Your task to perform on an android device: Open Youtube and go to the subscriptions tab Image 0: 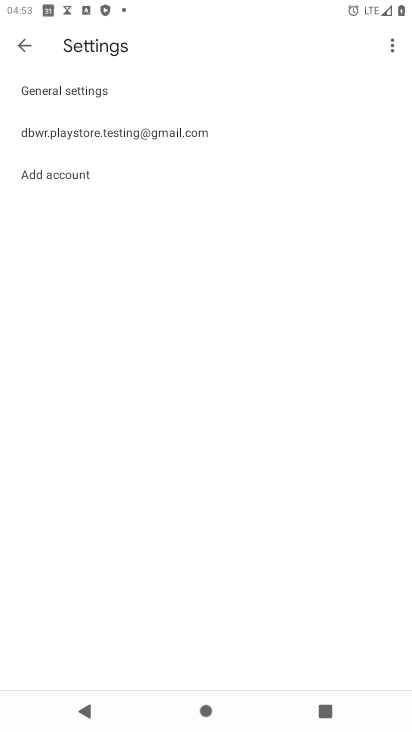
Step 0: press home button
Your task to perform on an android device: Open Youtube and go to the subscriptions tab Image 1: 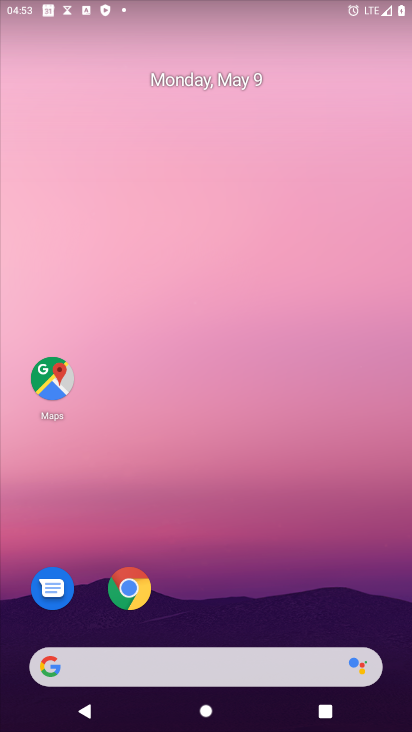
Step 1: drag from (304, 588) to (224, 103)
Your task to perform on an android device: Open Youtube and go to the subscriptions tab Image 2: 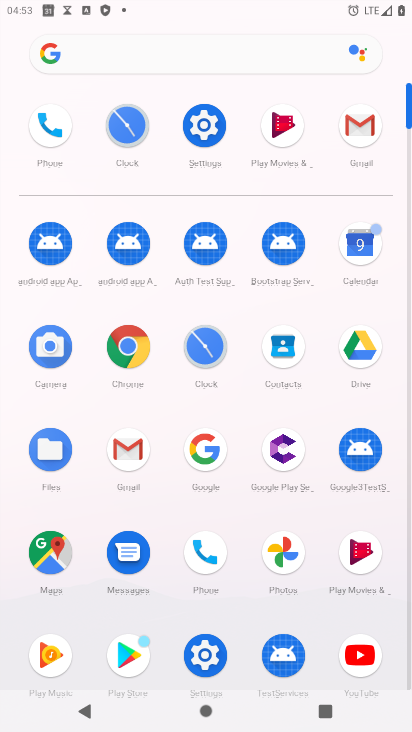
Step 2: click (351, 649)
Your task to perform on an android device: Open Youtube and go to the subscriptions tab Image 3: 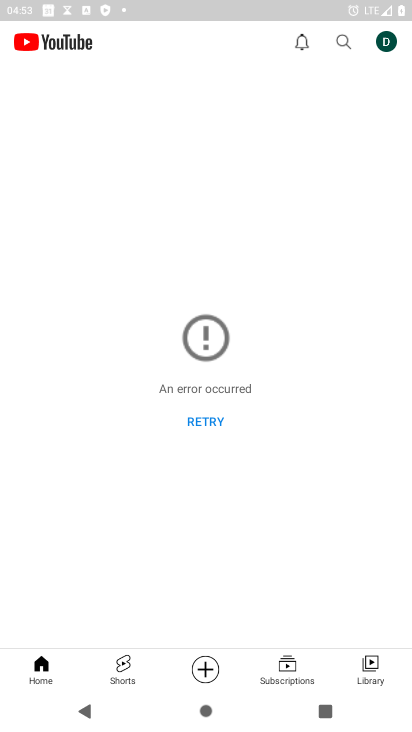
Step 3: click (277, 665)
Your task to perform on an android device: Open Youtube and go to the subscriptions tab Image 4: 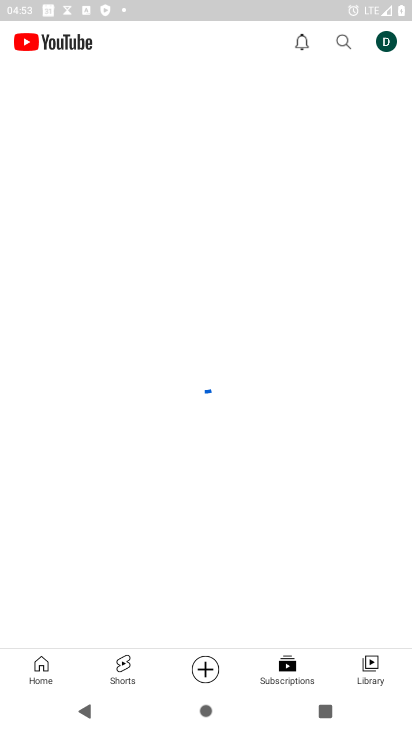
Step 4: task complete